Your task to perform on an android device: Go to CNN.com Image 0: 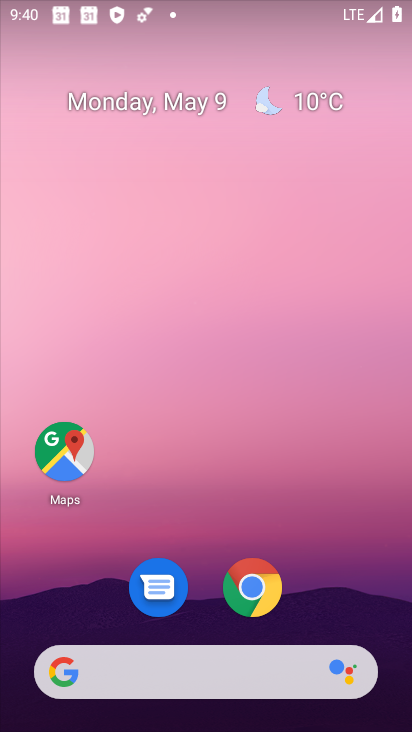
Step 0: click (267, 592)
Your task to perform on an android device: Go to CNN.com Image 1: 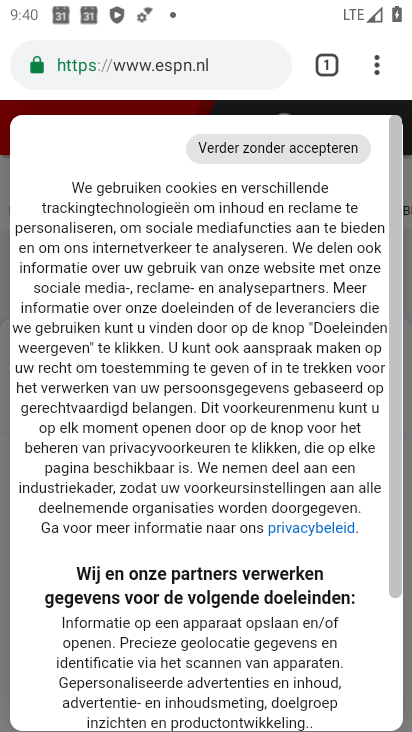
Step 1: click (318, 62)
Your task to perform on an android device: Go to CNN.com Image 2: 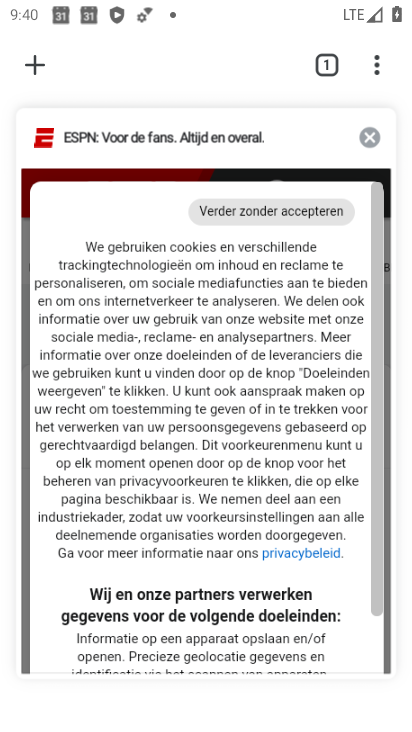
Step 2: click (381, 137)
Your task to perform on an android device: Go to CNN.com Image 3: 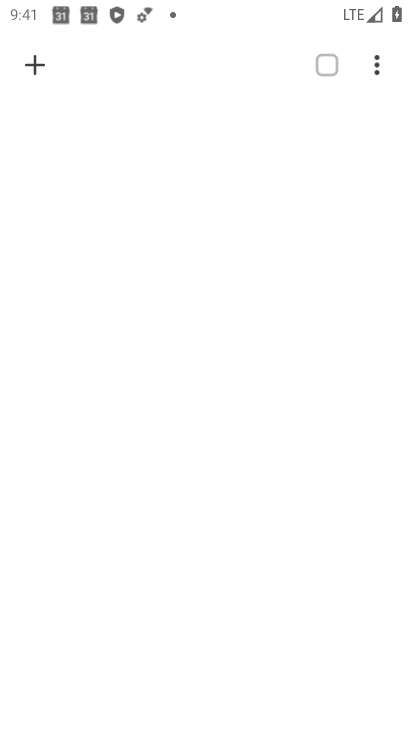
Step 3: click (47, 68)
Your task to perform on an android device: Go to CNN.com Image 4: 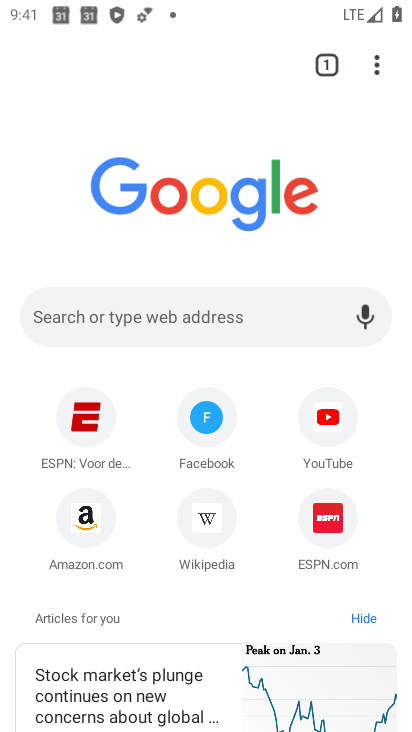
Step 4: click (47, 67)
Your task to perform on an android device: Go to CNN.com Image 5: 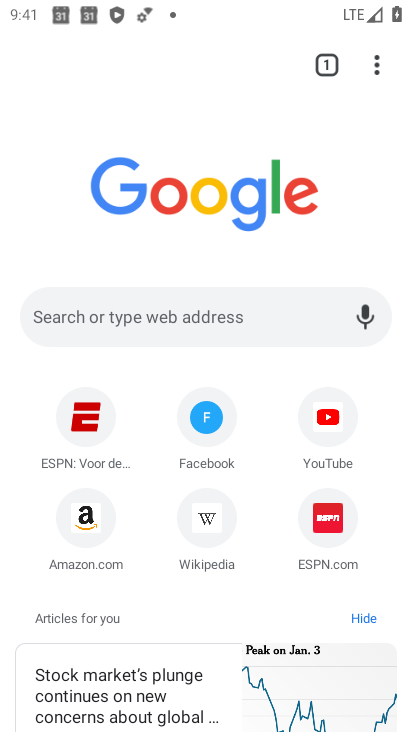
Step 5: click (230, 320)
Your task to perform on an android device: Go to CNN.com Image 6: 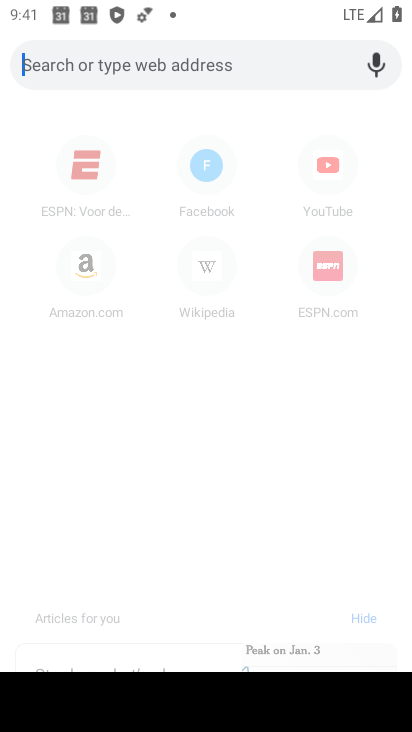
Step 6: type "cnn.com"
Your task to perform on an android device: Go to CNN.com Image 7: 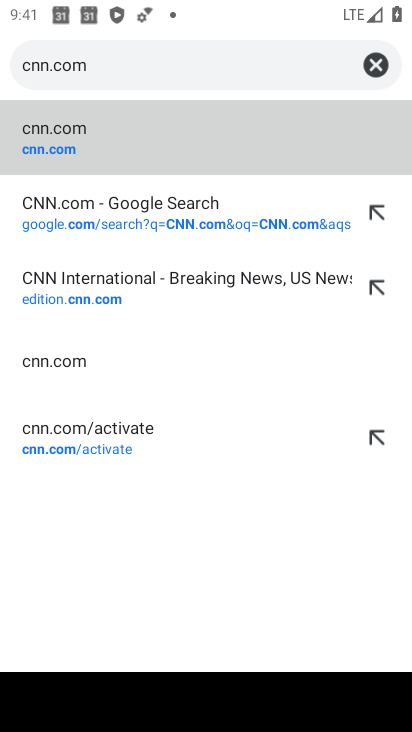
Step 7: click (91, 129)
Your task to perform on an android device: Go to CNN.com Image 8: 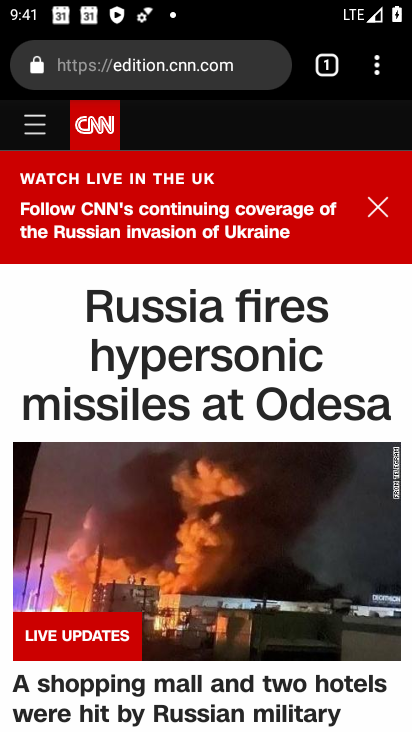
Step 8: task complete